Your task to perform on an android device: Open battery settings Image 0: 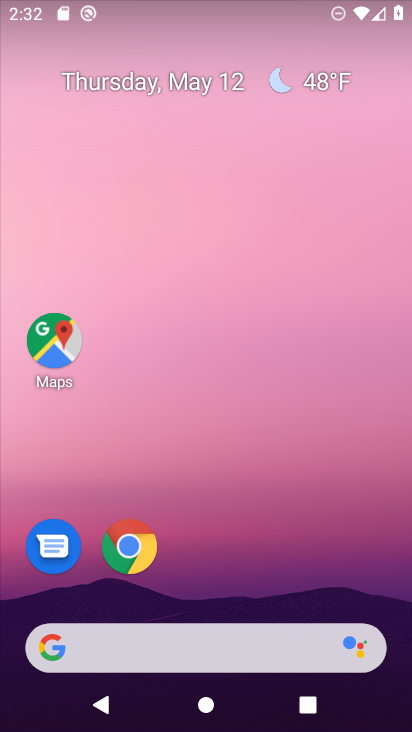
Step 0: drag from (283, 682) to (333, 264)
Your task to perform on an android device: Open battery settings Image 1: 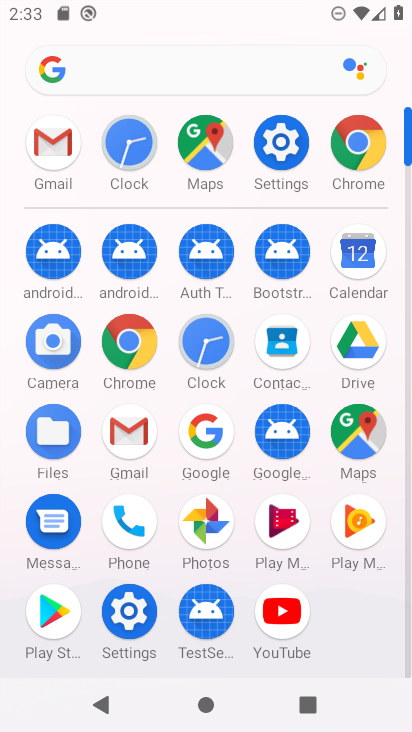
Step 1: click (137, 618)
Your task to perform on an android device: Open battery settings Image 2: 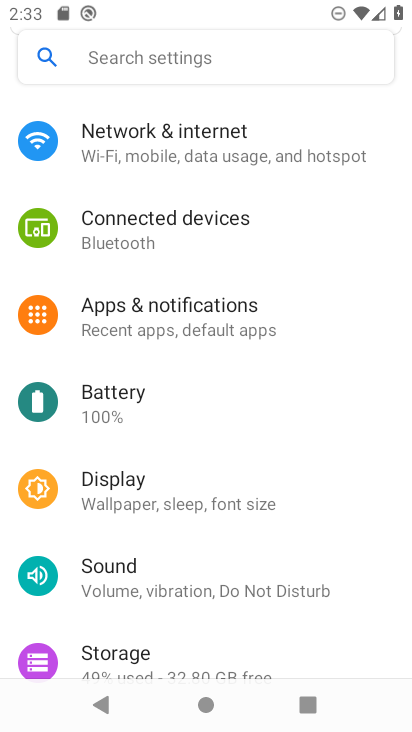
Step 2: click (179, 426)
Your task to perform on an android device: Open battery settings Image 3: 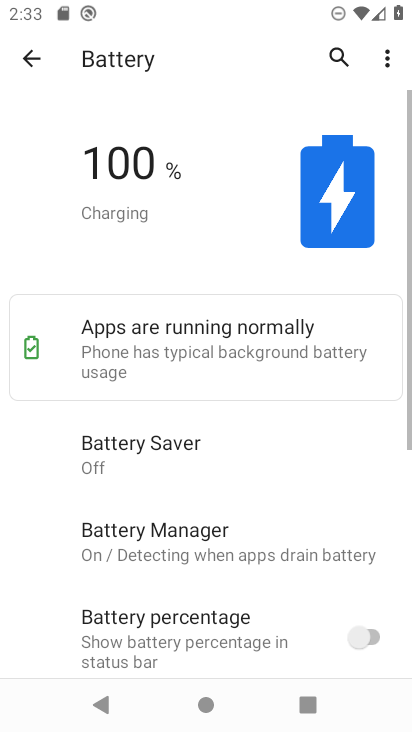
Step 3: task complete